Your task to perform on an android device: refresh tabs in the chrome app Image 0: 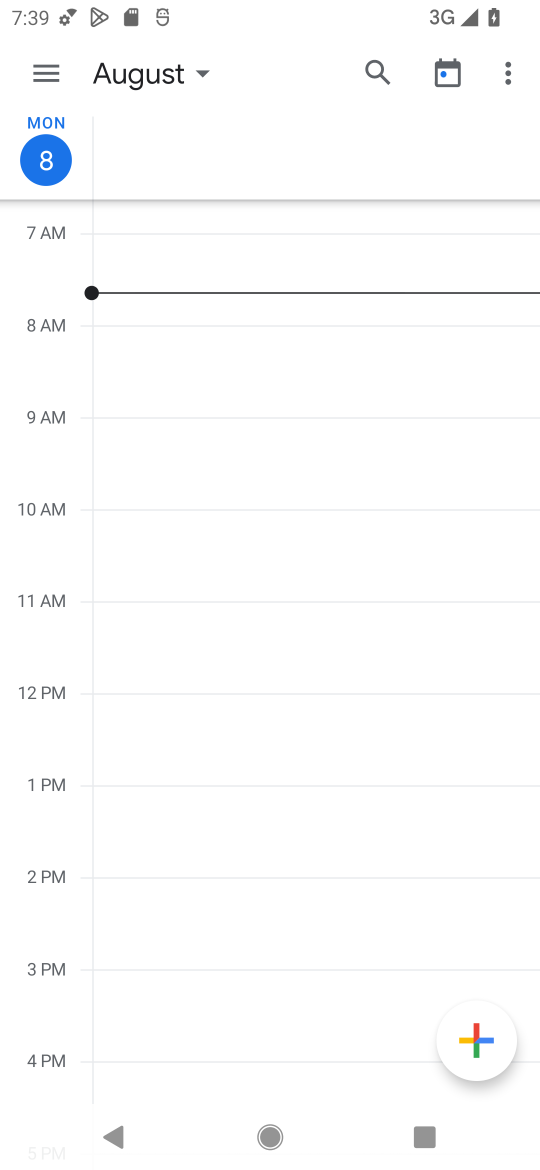
Step 0: click (272, 1135)
Your task to perform on an android device: refresh tabs in the chrome app Image 1: 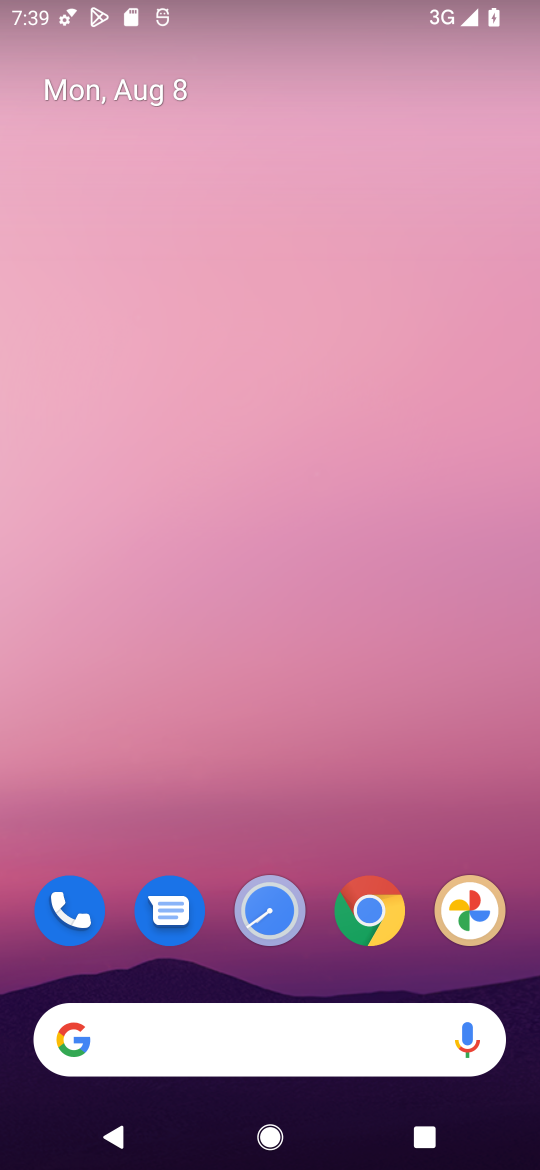
Step 1: click (313, 914)
Your task to perform on an android device: refresh tabs in the chrome app Image 2: 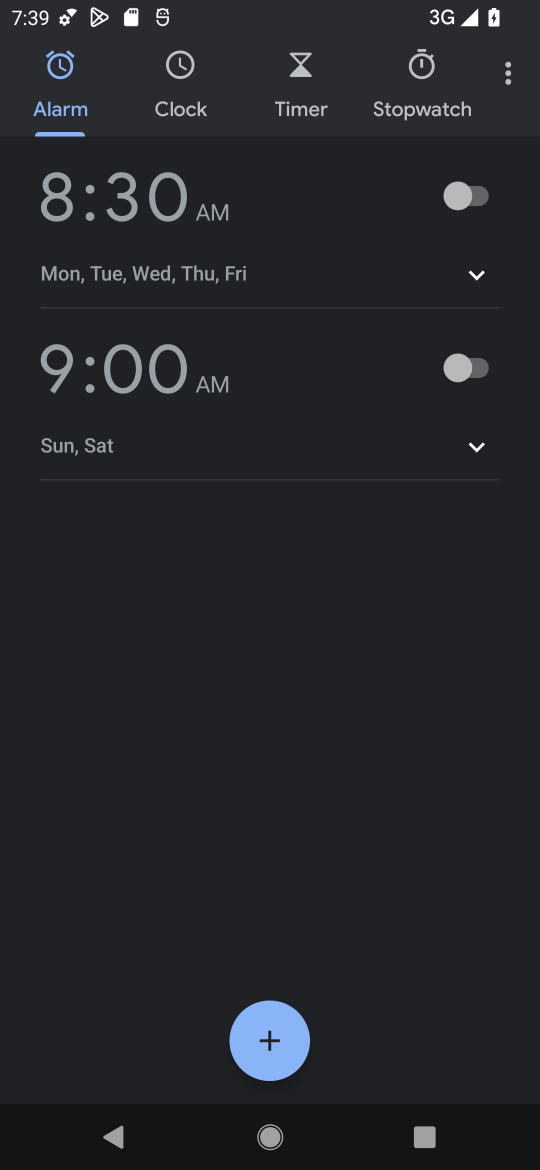
Step 2: press home button
Your task to perform on an android device: refresh tabs in the chrome app Image 3: 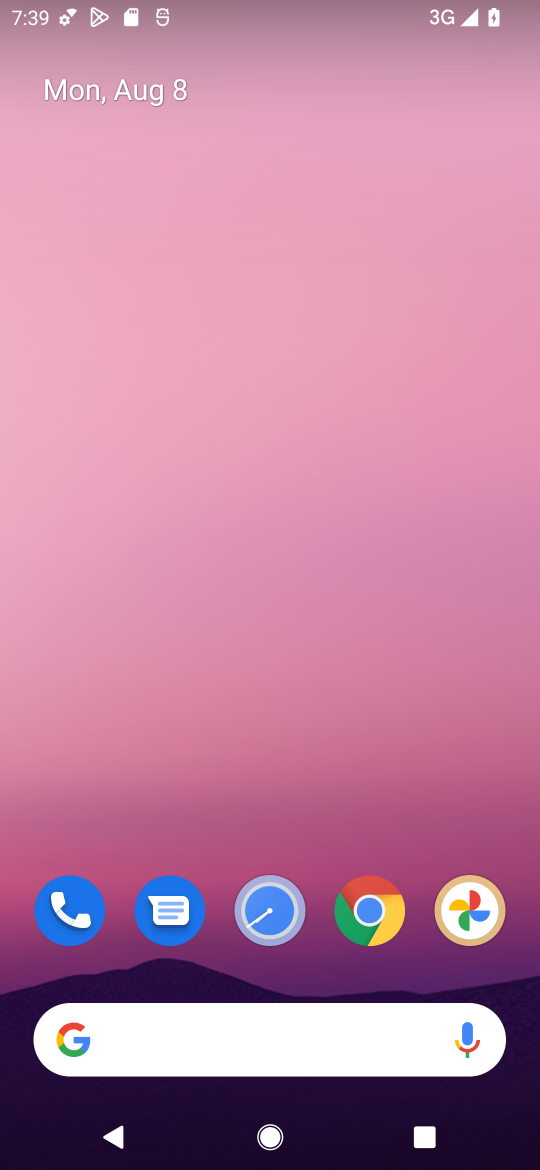
Step 3: click (316, 932)
Your task to perform on an android device: refresh tabs in the chrome app Image 4: 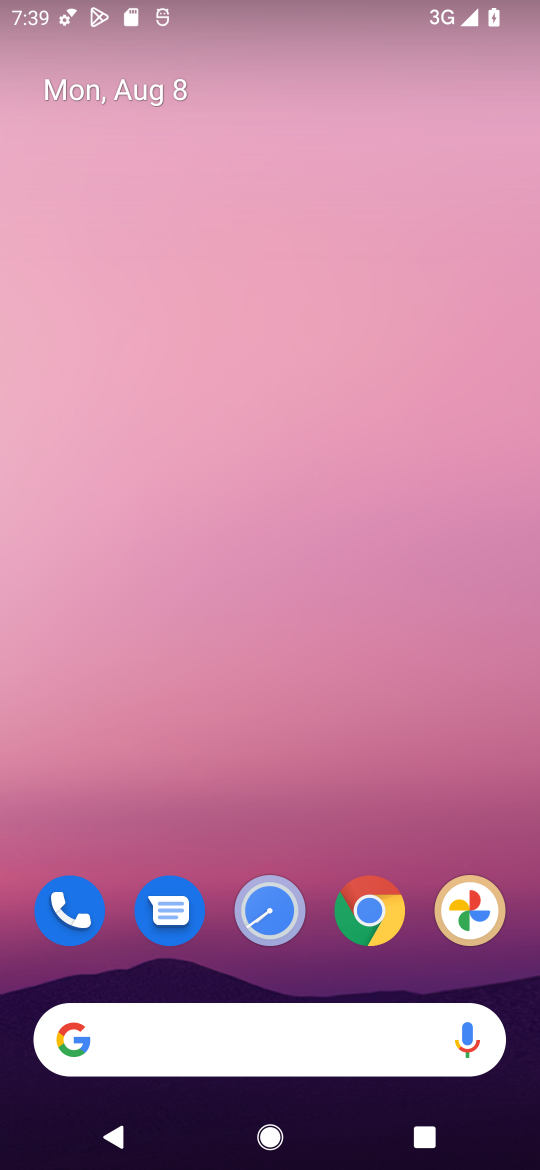
Step 4: click (382, 906)
Your task to perform on an android device: refresh tabs in the chrome app Image 5: 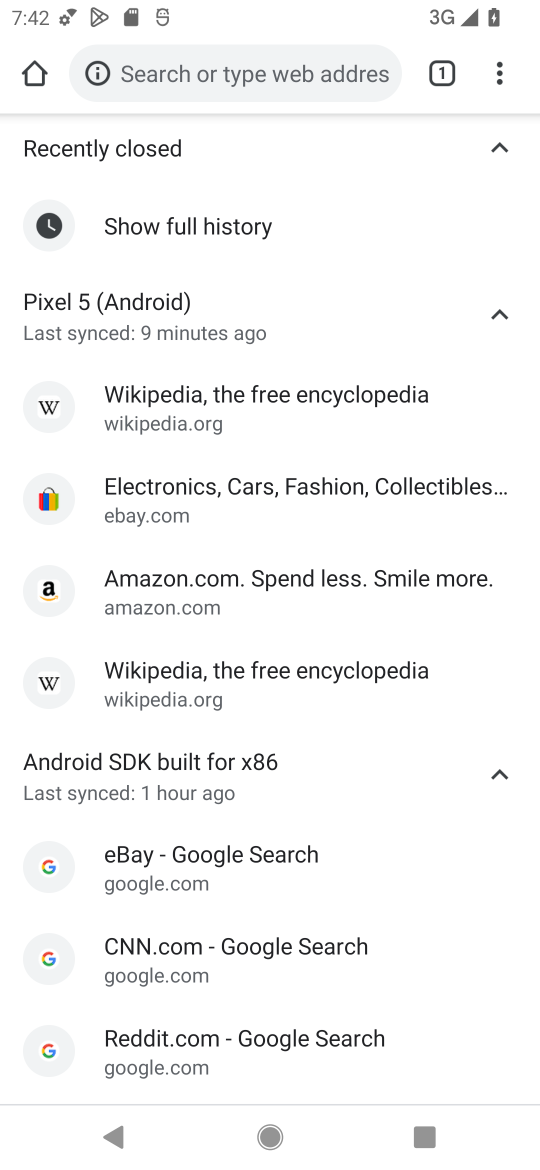
Step 5: click (502, 82)
Your task to perform on an android device: refresh tabs in the chrome app Image 6: 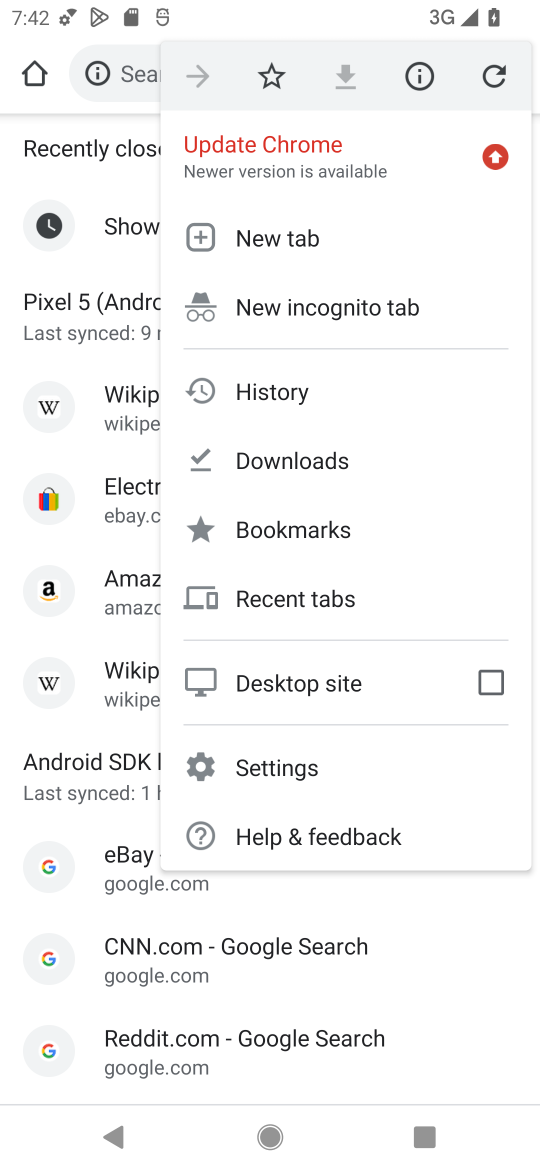
Step 6: click (496, 74)
Your task to perform on an android device: refresh tabs in the chrome app Image 7: 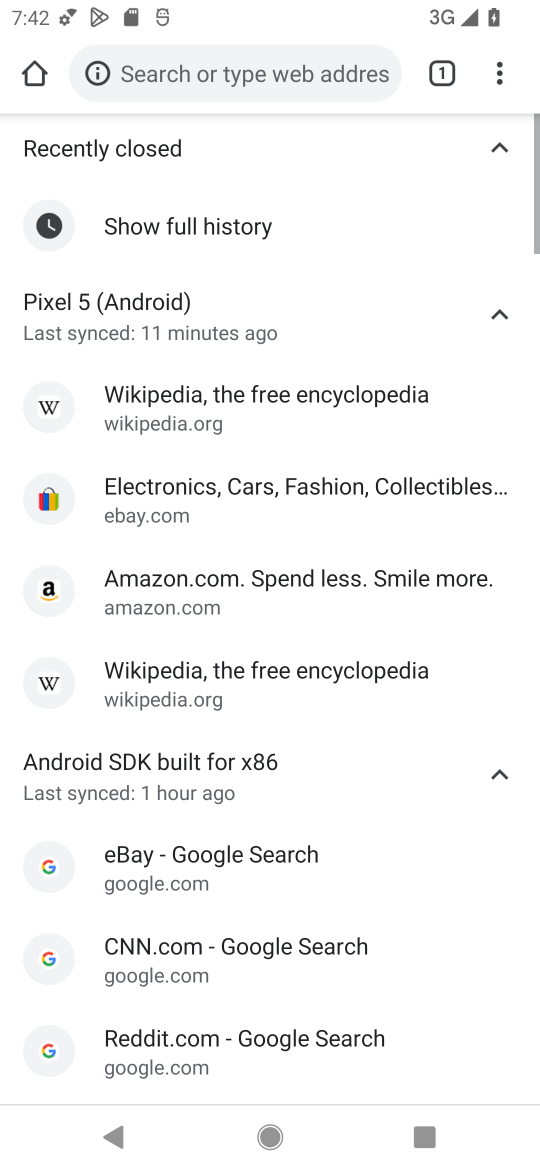
Step 7: task complete